Your task to perform on an android device: change notifications settings Image 0: 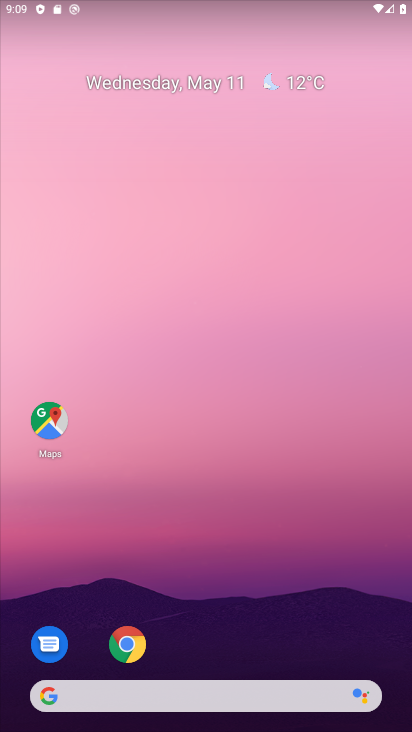
Step 0: drag from (316, 634) to (264, 182)
Your task to perform on an android device: change notifications settings Image 1: 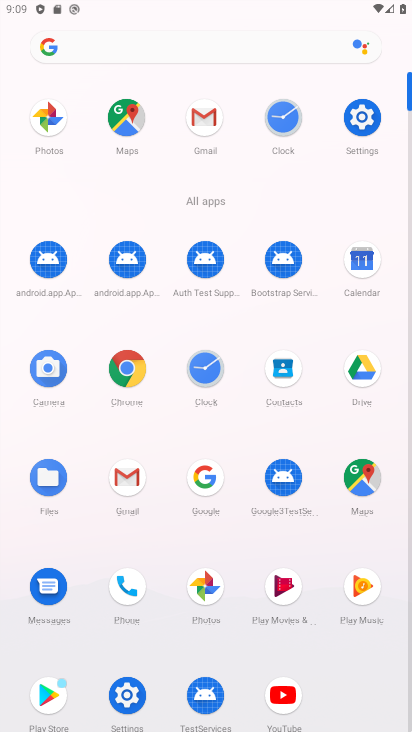
Step 1: click (349, 122)
Your task to perform on an android device: change notifications settings Image 2: 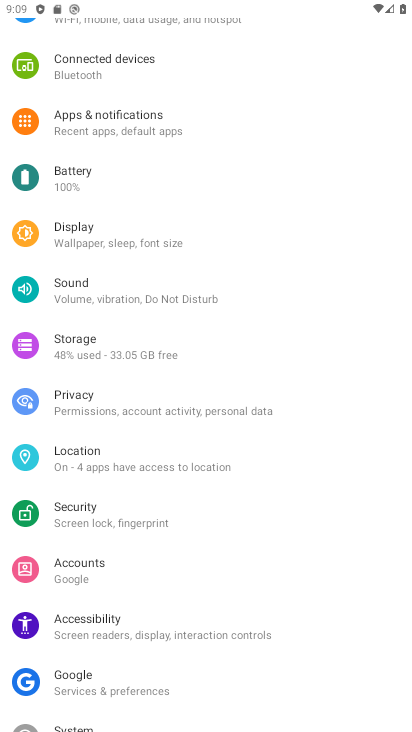
Step 2: click (274, 146)
Your task to perform on an android device: change notifications settings Image 3: 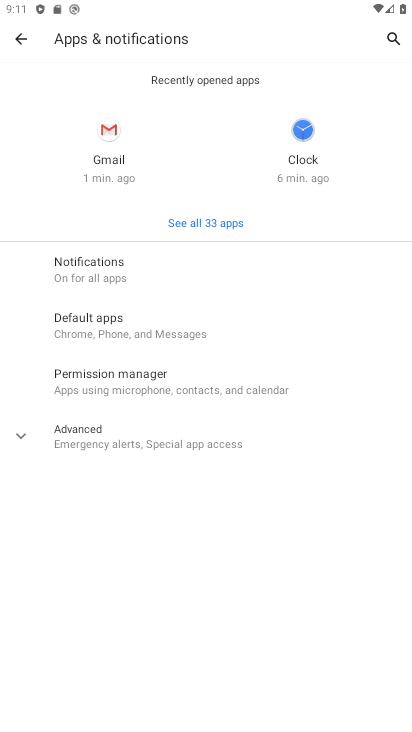
Step 3: click (159, 248)
Your task to perform on an android device: change notifications settings Image 4: 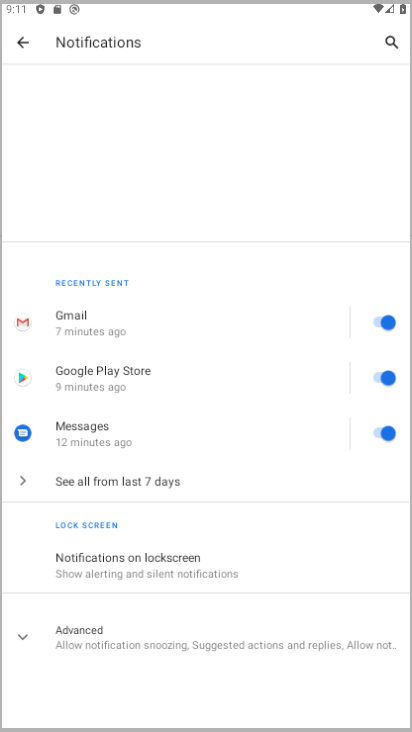
Step 4: task complete